Your task to perform on an android device: Go to Wikipedia Image 0: 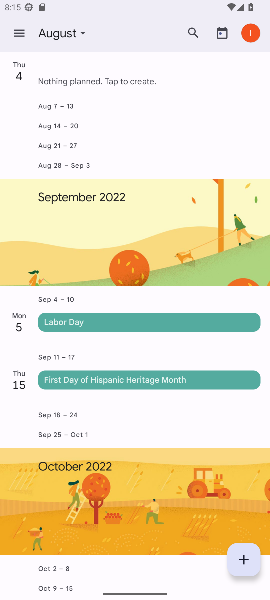
Step 0: press home button
Your task to perform on an android device: Go to Wikipedia Image 1: 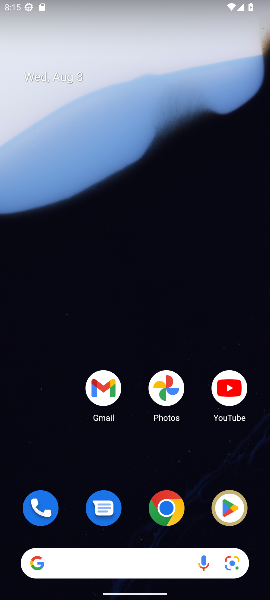
Step 1: click (177, 510)
Your task to perform on an android device: Go to Wikipedia Image 2: 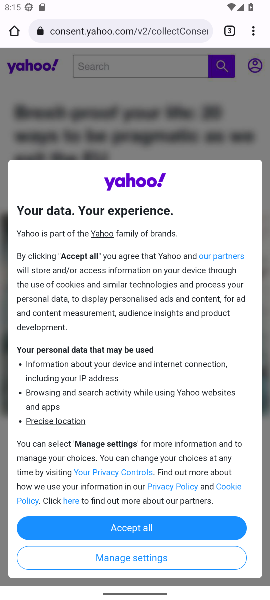
Step 2: click (230, 27)
Your task to perform on an android device: Go to Wikipedia Image 3: 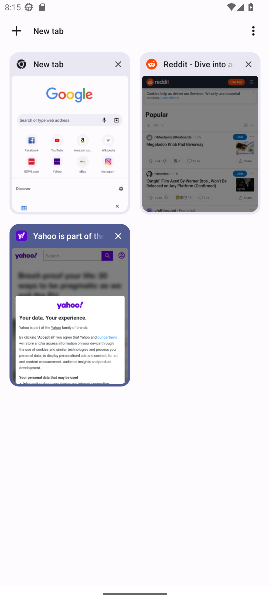
Step 3: click (15, 33)
Your task to perform on an android device: Go to Wikipedia Image 4: 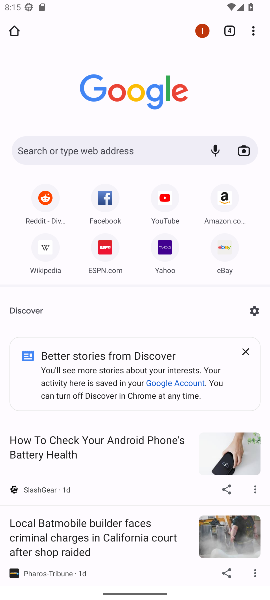
Step 4: click (43, 248)
Your task to perform on an android device: Go to Wikipedia Image 5: 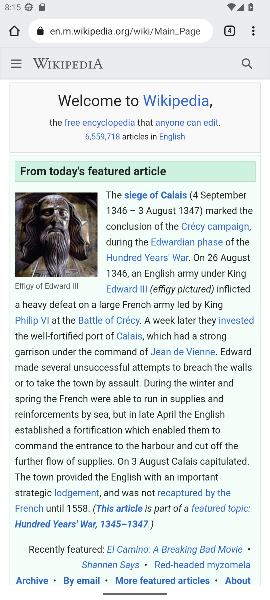
Step 5: task complete